Your task to perform on an android device: Open settings Image 0: 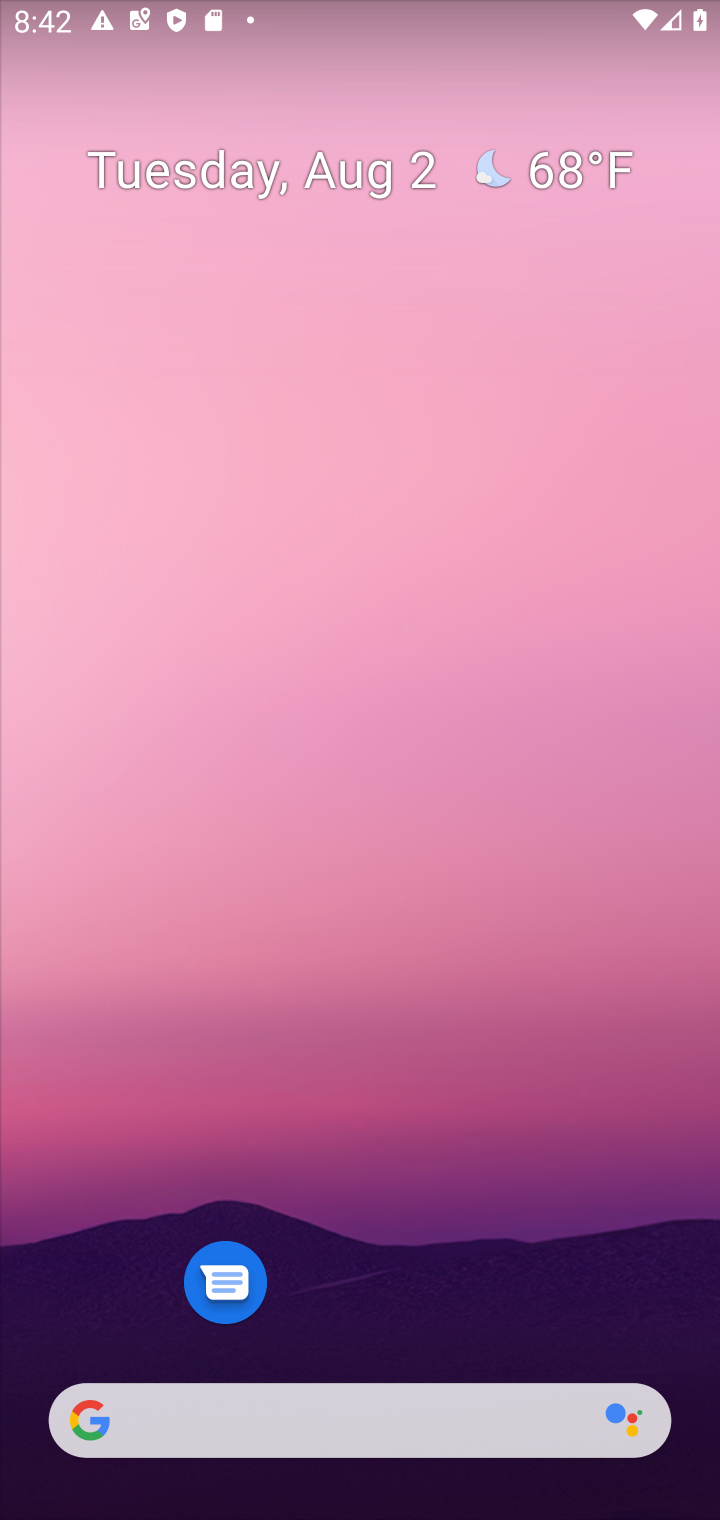
Step 0: drag from (379, 1246) to (313, 400)
Your task to perform on an android device: Open settings Image 1: 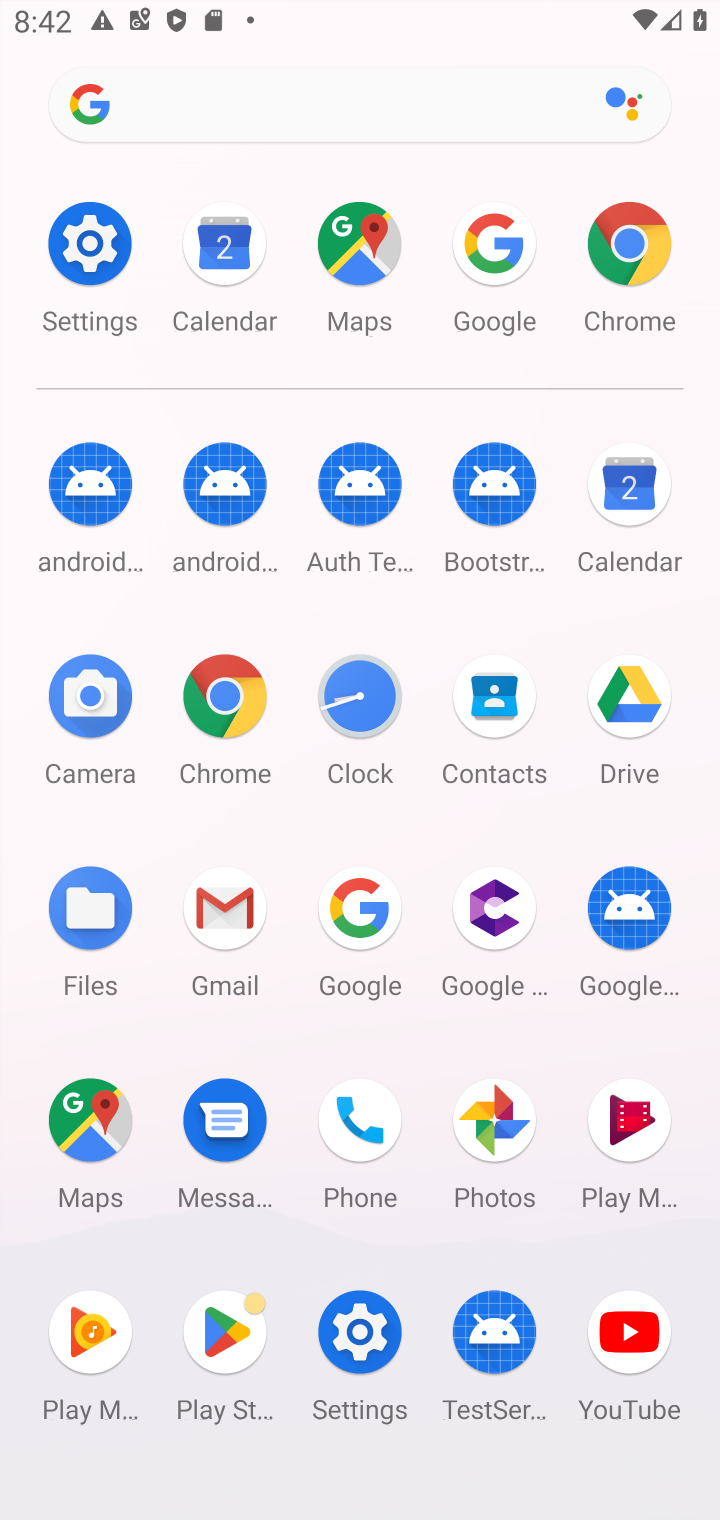
Step 1: click (106, 232)
Your task to perform on an android device: Open settings Image 2: 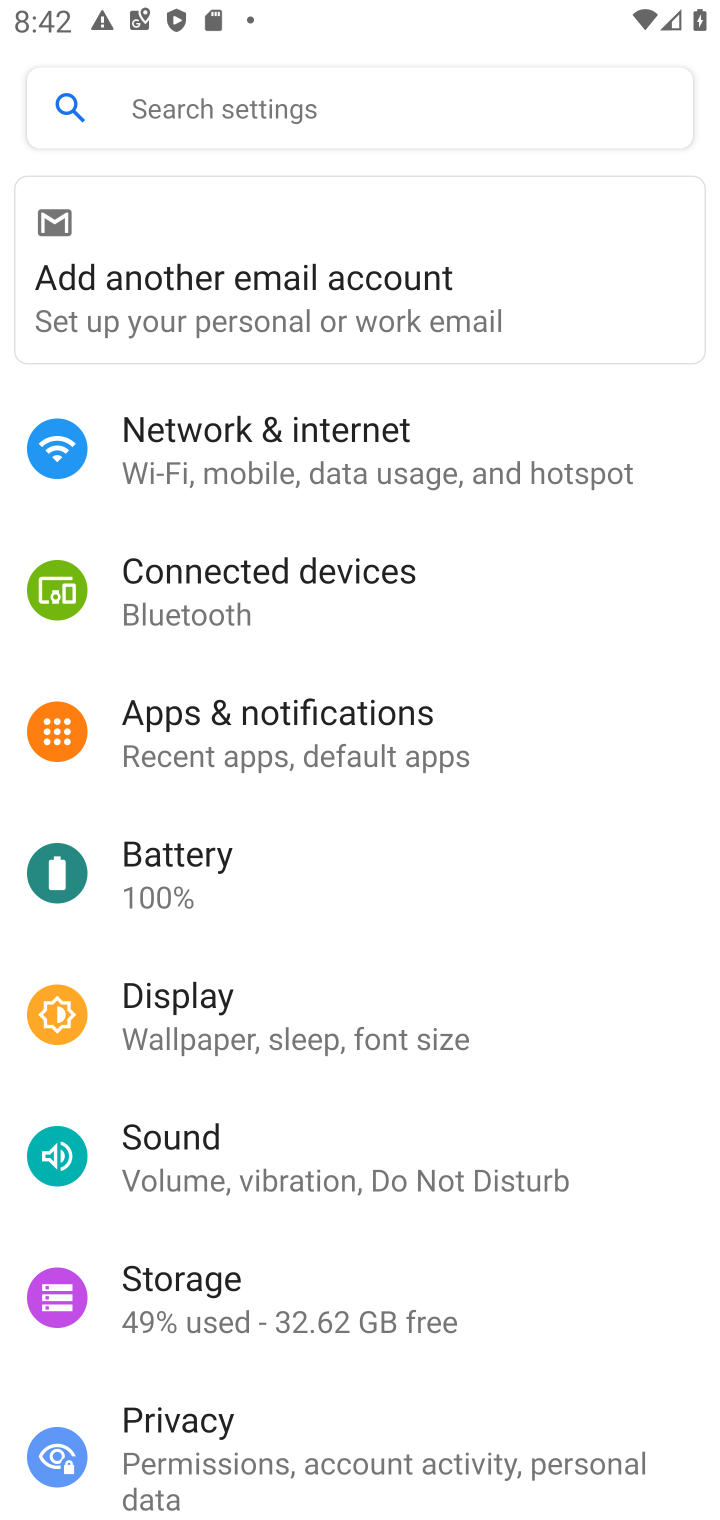
Step 2: task complete